Your task to perform on an android device: Open CNN.com Image 0: 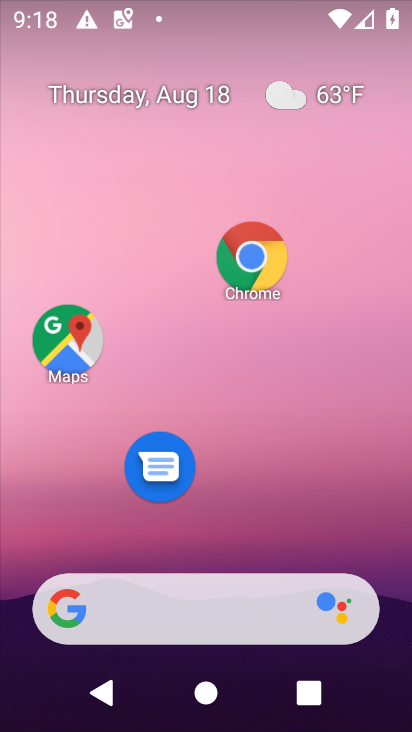
Step 0: click (357, 350)
Your task to perform on an android device: Open CNN.com Image 1: 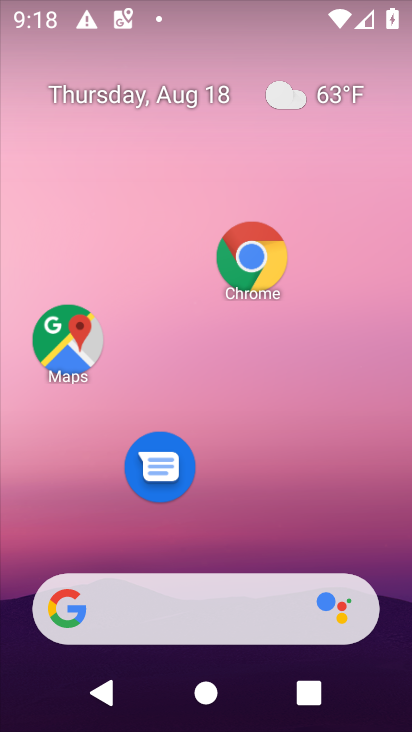
Step 1: task complete